Your task to perform on an android device: Turn on the flashlight Image 0: 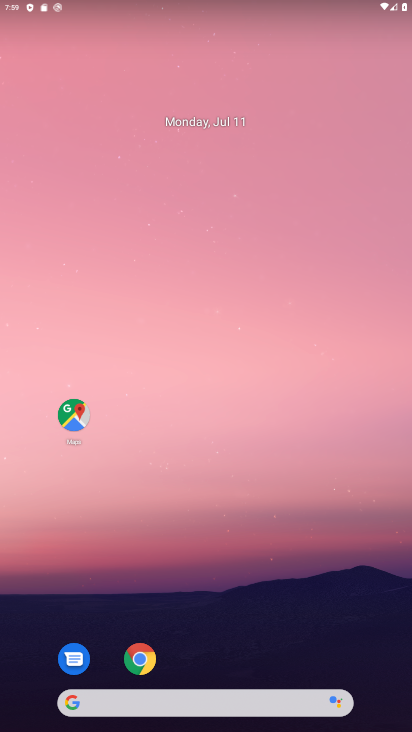
Step 0: drag from (36, 716) to (300, 60)
Your task to perform on an android device: Turn on the flashlight Image 1: 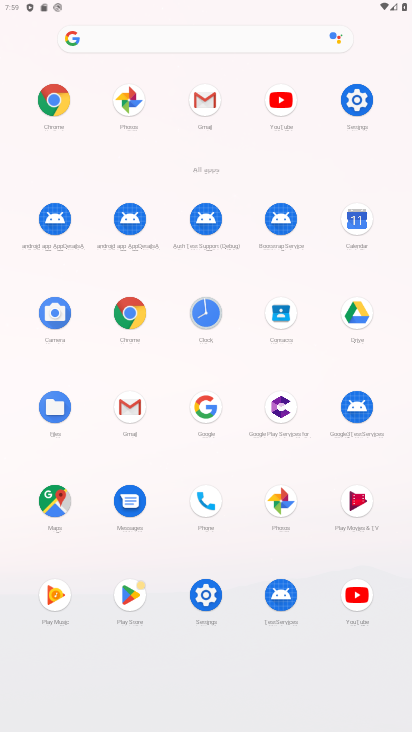
Step 1: click (191, 593)
Your task to perform on an android device: Turn on the flashlight Image 2: 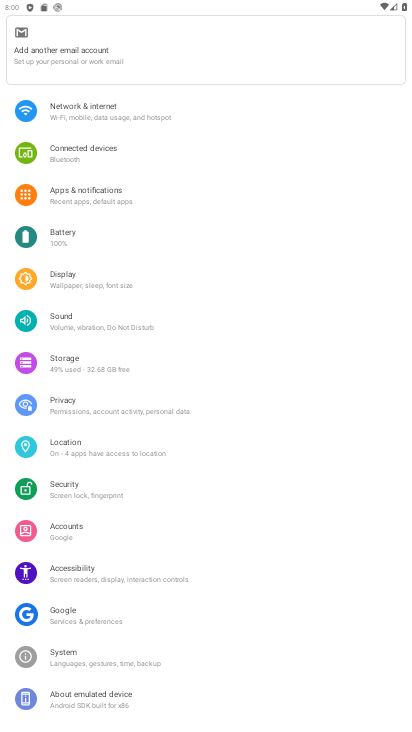
Step 2: click (84, 188)
Your task to perform on an android device: Turn on the flashlight Image 3: 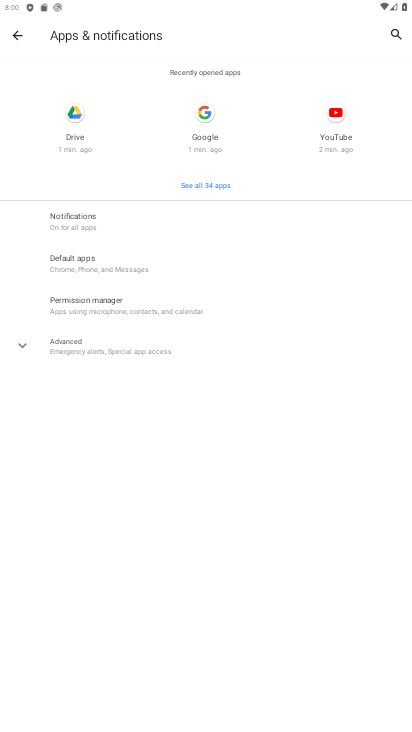
Step 3: click (78, 339)
Your task to perform on an android device: Turn on the flashlight Image 4: 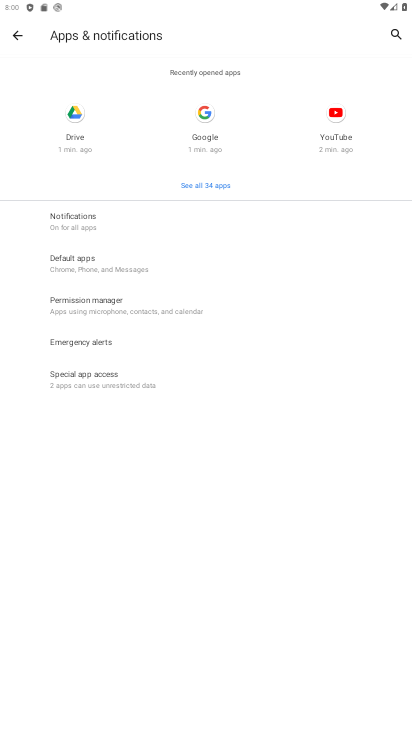
Step 4: task complete